Your task to perform on an android device: delete the emails in spam in the gmail app Image 0: 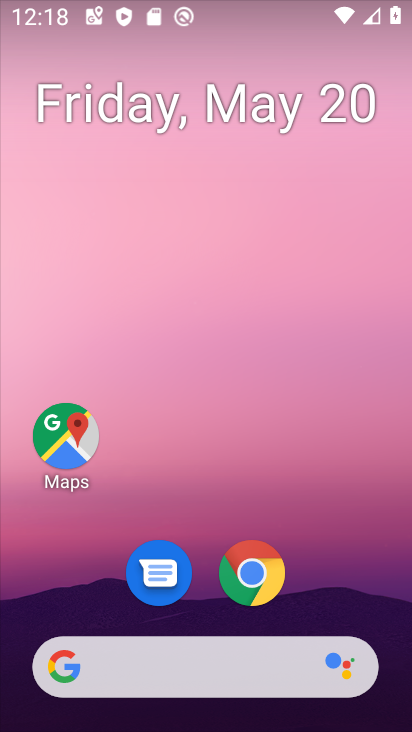
Step 0: drag from (204, 597) to (255, 160)
Your task to perform on an android device: delete the emails in spam in the gmail app Image 1: 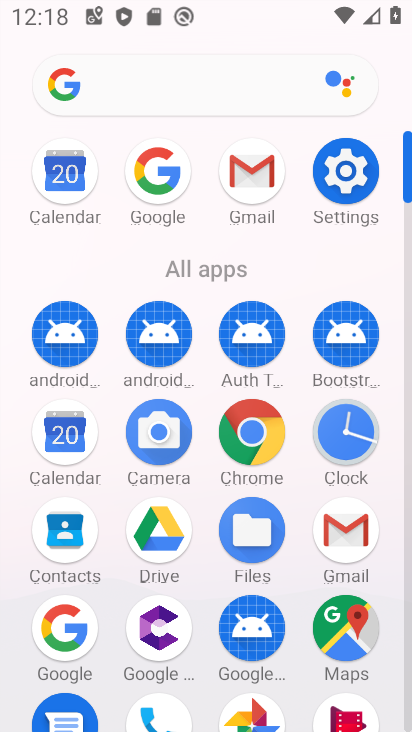
Step 1: click (254, 165)
Your task to perform on an android device: delete the emails in spam in the gmail app Image 2: 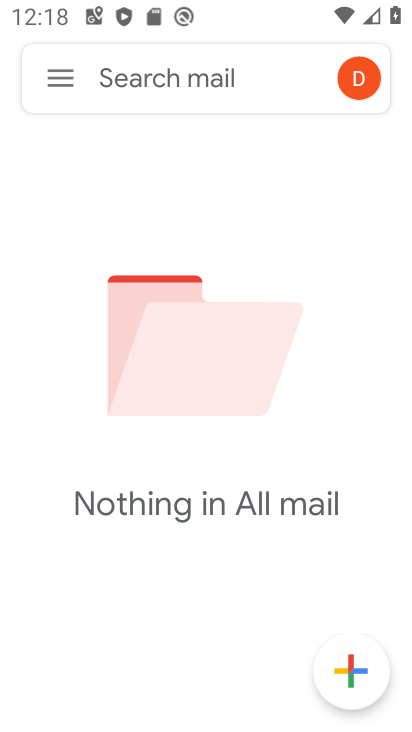
Step 2: click (65, 73)
Your task to perform on an android device: delete the emails in spam in the gmail app Image 3: 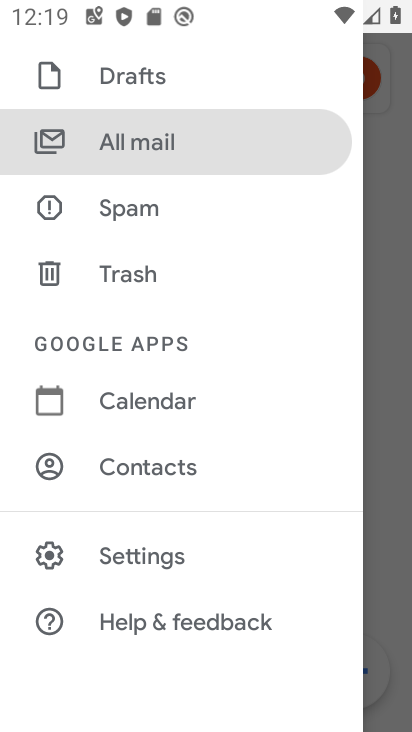
Step 3: click (143, 214)
Your task to perform on an android device: delete the emails in spam in the gmail app Image 4: 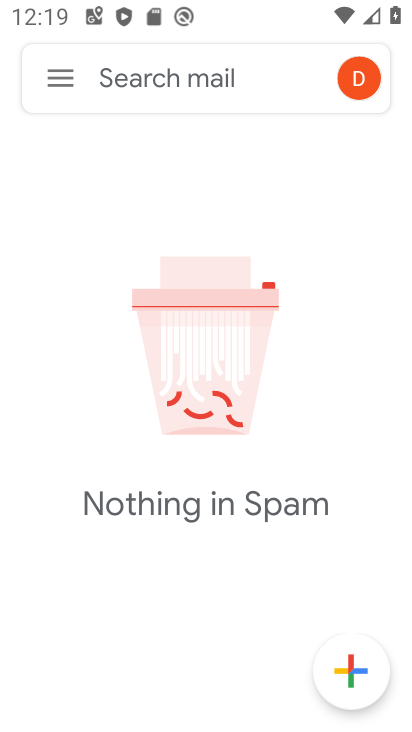
Step 4: task complete